Your task to perform on an android device: Search for seafood restaurants on Google Maps Image 0: 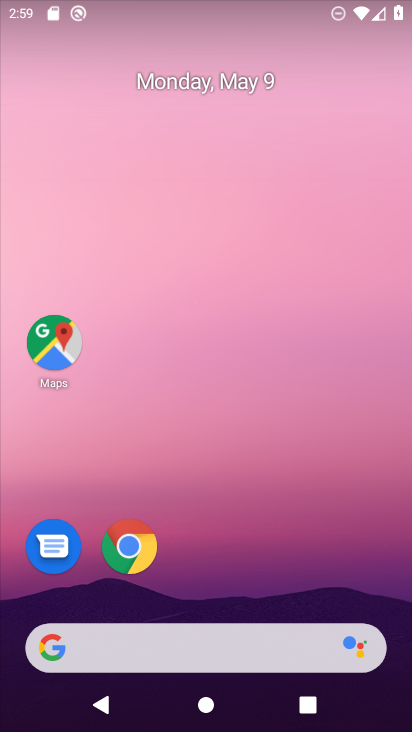
Step 0: click (54, 342)
Your task to perform on an android device: Search for seafood restaurants on Google Maps Image 1: 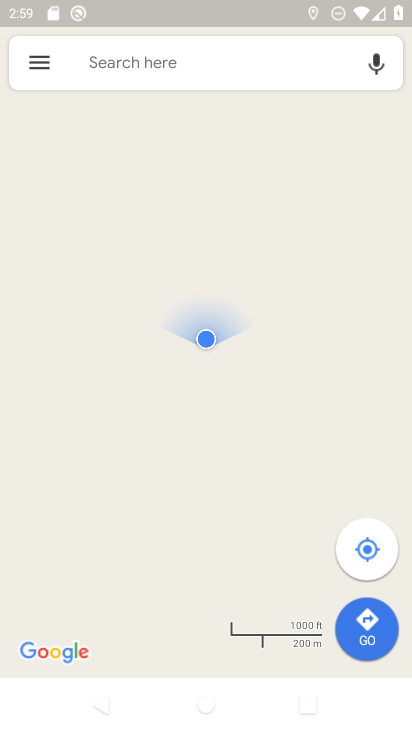
Step 1: click (148, 57)
Your task to perform on an android device: Search for seafood restaurants on Google Maps Image 2: 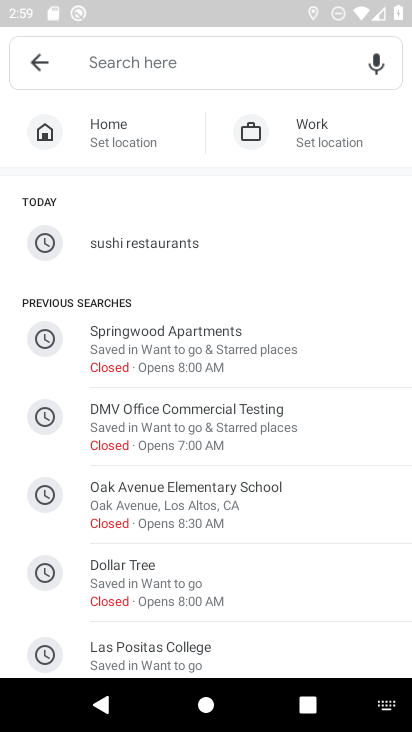
Step 2: type "seafood"
Your task to perform on an android device: Search for seafood restaurants on Google Maps Image 3: 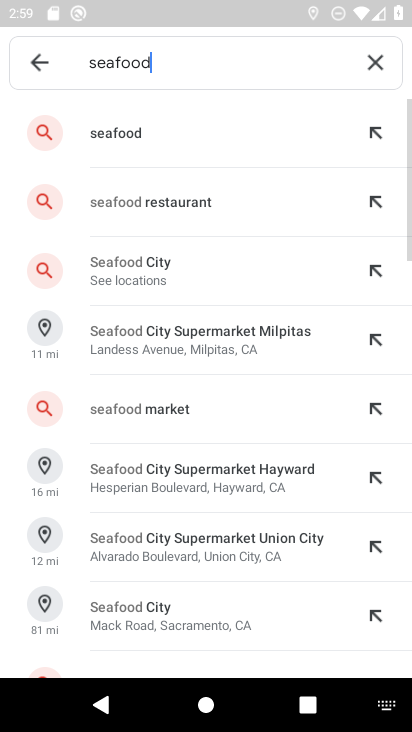
Step 3: click (193, 202)
Your task to perform on an android device: Search for seafood restaurants on Google Maps Image 4: 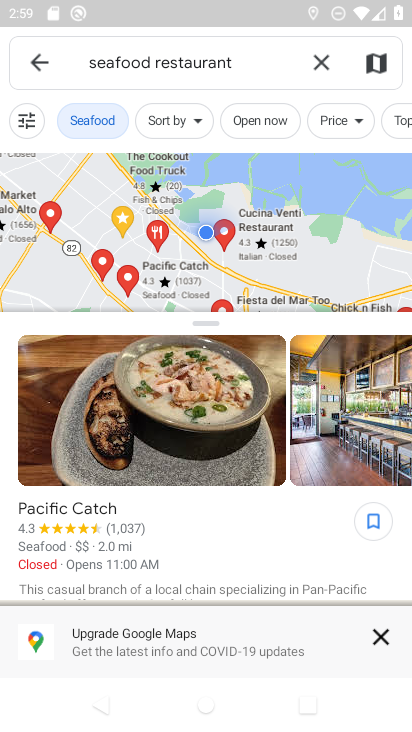
Step 4: task complete